Your task to perform on an android device: open device folders in google photos Image 0: 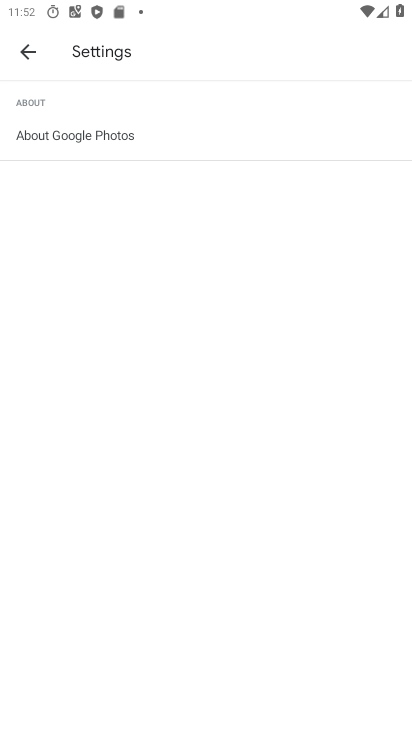
Step 0: press home button
Your task to perform on an android device: open device folders in google photos Image 1: 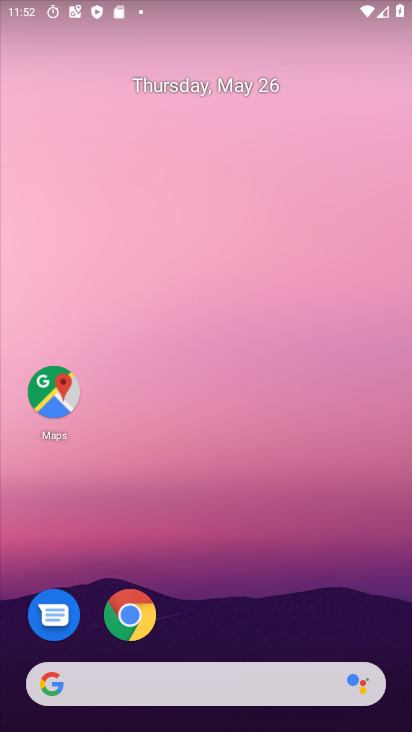
Step 1: drag from (226, 616) to (154, 273)
Your task to perform on an android device: open device folders in google photos Image 2: 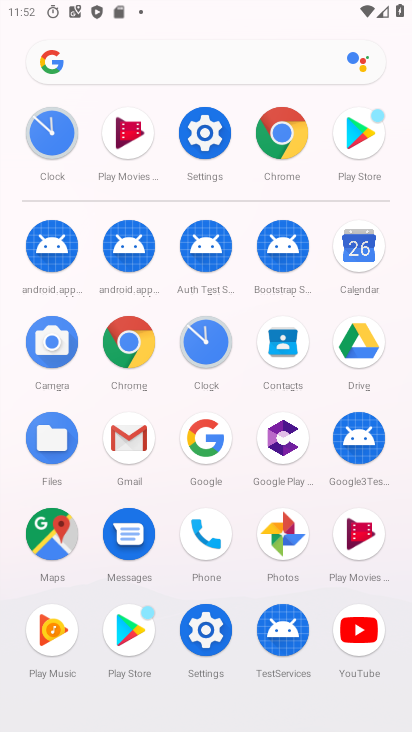
Step 2: click (289, 531)
Your task to perform on an android device: open device folders in google photos Image 3: 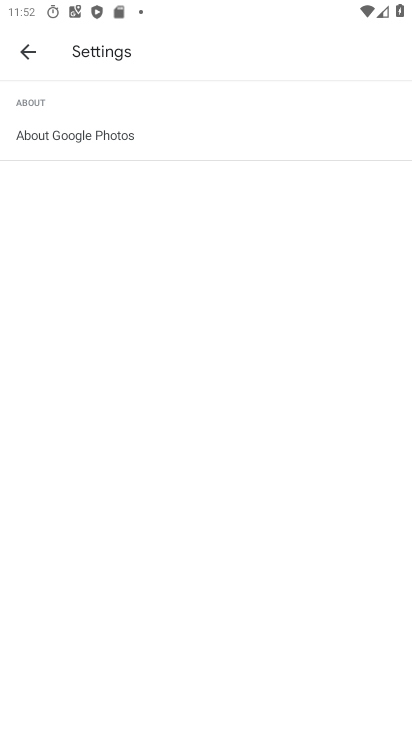
Step 3: click (25, 47)
Your task to perform on an android device: open device folders in google photos Image 4: 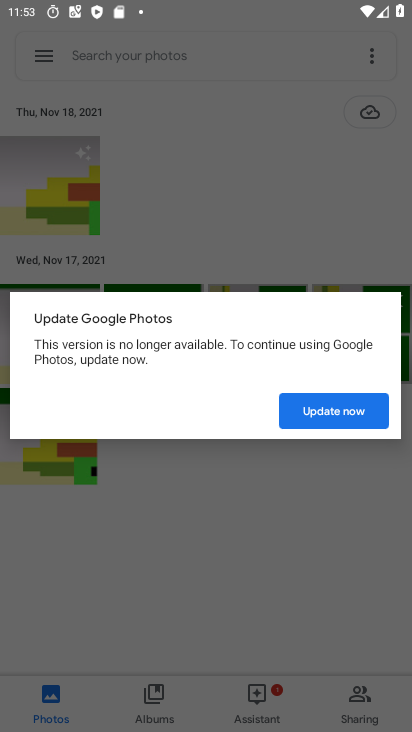
Step 4: click (346, 417)
Your task to perform on an android device: open device folders in google photos Image 5: 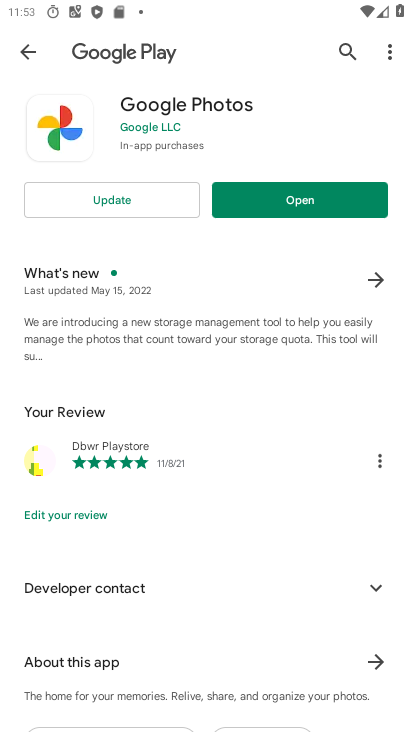
Step 5: click (134, 191)
Your task to perform on an android device: open device folders in google photos Image 6: 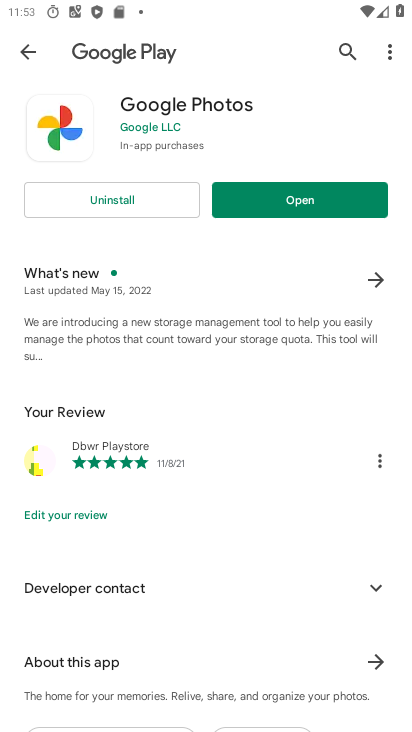
Step 6: click (268, 182)
Your task to perform on an android device: open device folders in google photos Image 7: 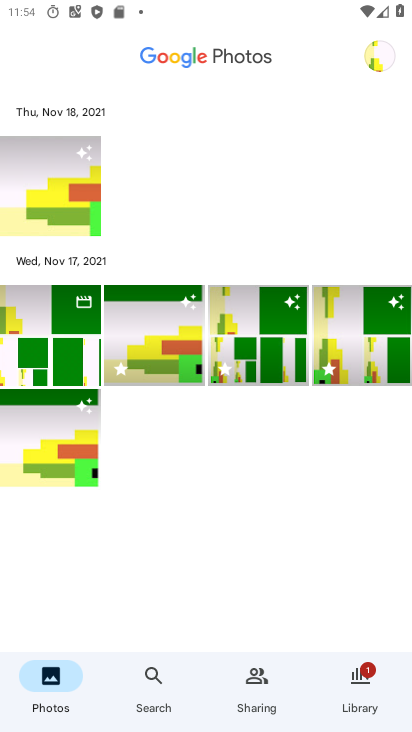
Step 7: click (361, 689)
Your task to perform on an android device: open device folders in google photos Image 8: 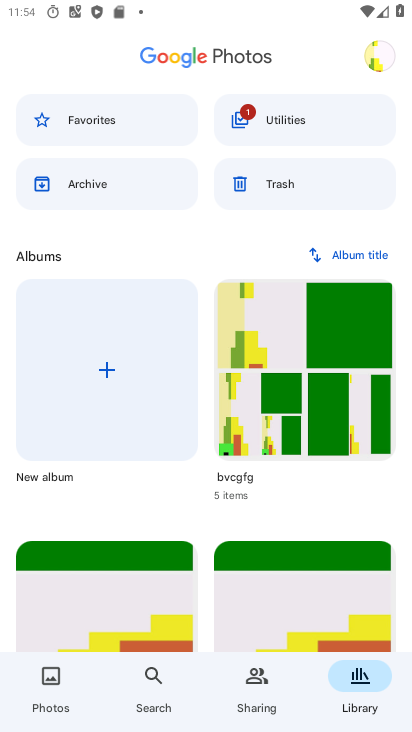
Step 8: task complete